Your task to perform on an android device: change the clock display to analog Image 0: 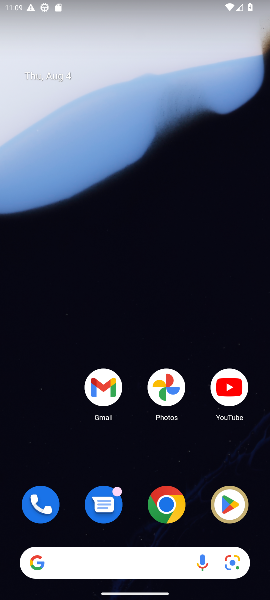
Step 0: drag from (201, 461) to (173, 164)
Your task to perform on an android device: change the clock display to analog Image 1: 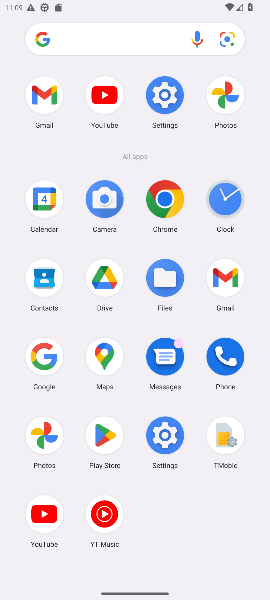
Step 1: click (216, 210)
Your task to perform on an android device: change the clock display to analog Image 2: 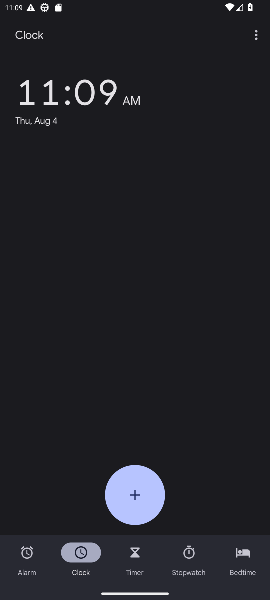
Step 2: click (258, 39)
Your task to perform on an android device: change the clock display to analog Image 3: 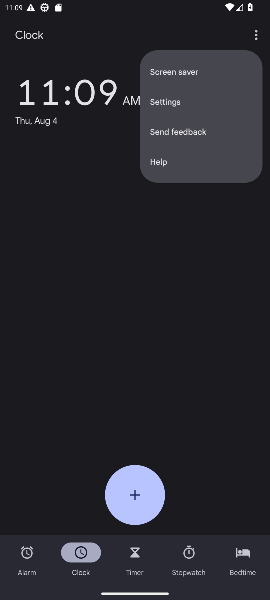
Step 3: click (167, 105)
Your task to perform on an android device: change the clock display to analog Image 4: 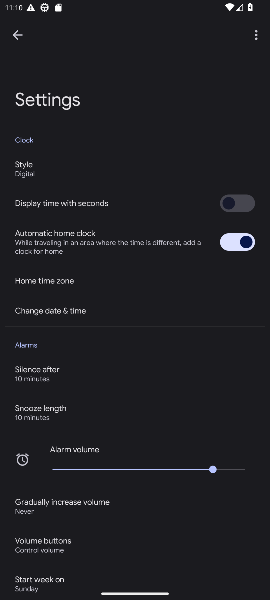
Step 4: click (32, 165)
Your task to perform on an android device: change the clock display to analog Image 5: 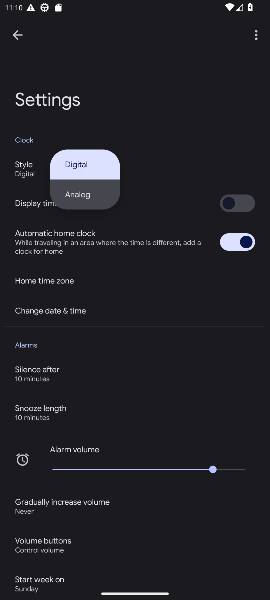
Step 5: click (89, 199)
Your task to perform on an android device: change the clock display to analog Image 6: 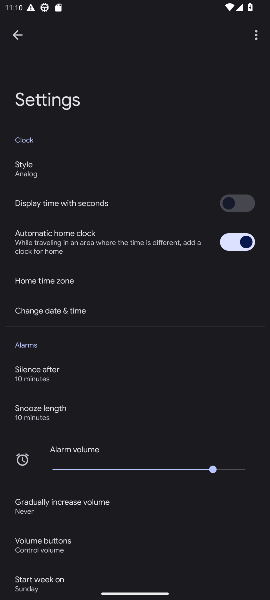
Step 6: task complete